Your task to perform on an android device: Show me recent news Image 0: 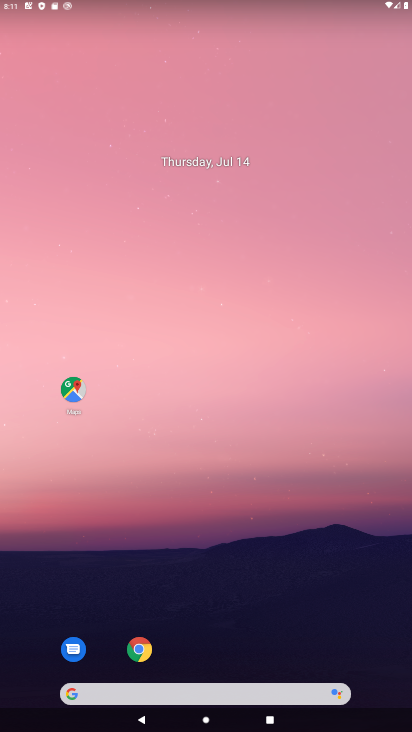
Step 0: click (247, 700)
Your task to perform on an android device: Show me recent news Image 1: 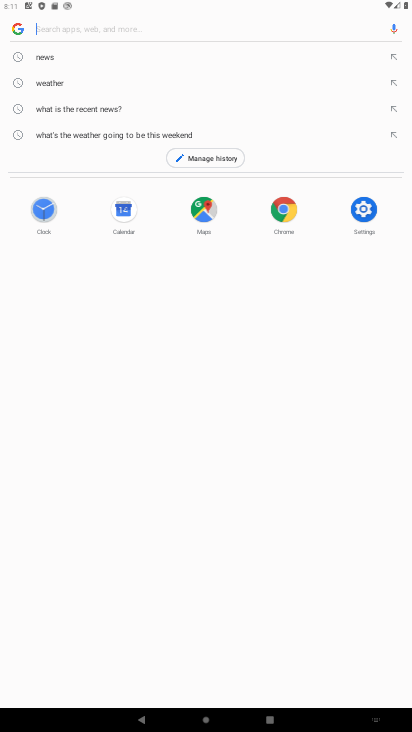
Step 1: click (103, 110)
Your task to perform on an android device: Show me recent news Image 2: 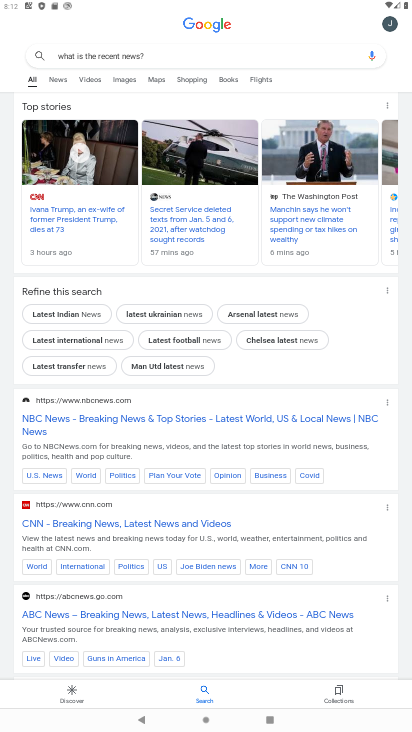
Step 2: task complete